Your task to perform on an android device: turn on priority inbox in the gmail app Image 0: 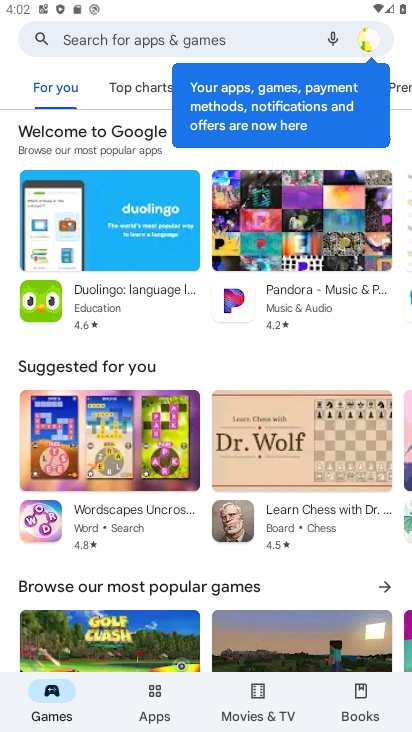
Step 0: press home button
Your task to perform on an android device: turn on priority inbox in the gmail app Image 1: 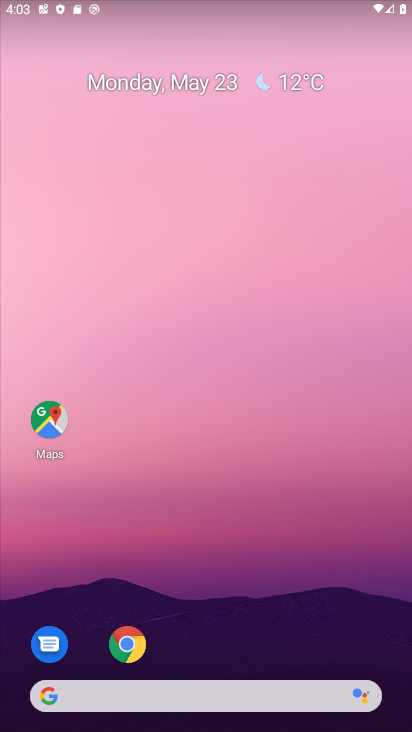
Step 1: drag from (223, 632) to (169, 188)
Your task to perform on an android device: turn on priority inbox in the gmail app Image 2: 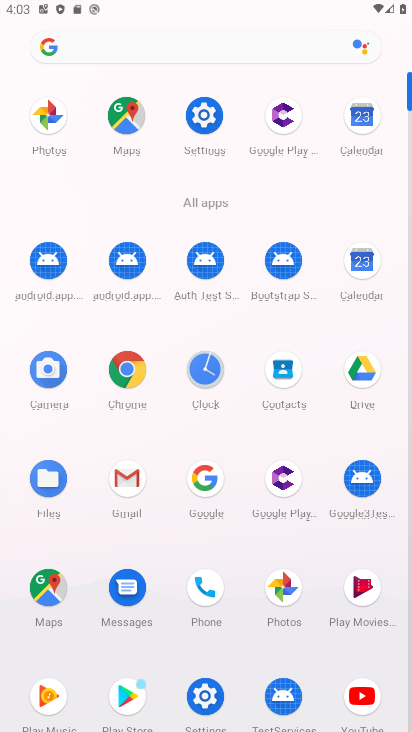
Step 2: click (129, 478)
Your task to perform on an android device: turn on priority inbox in the gmail app Image 3: 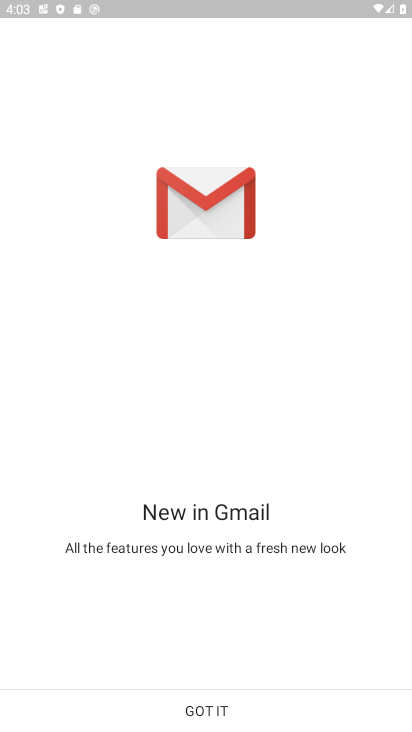
Step 3: click (220, 695)
Your task to perform on an android device: turn on priority inbox in the gmail app Image 4: 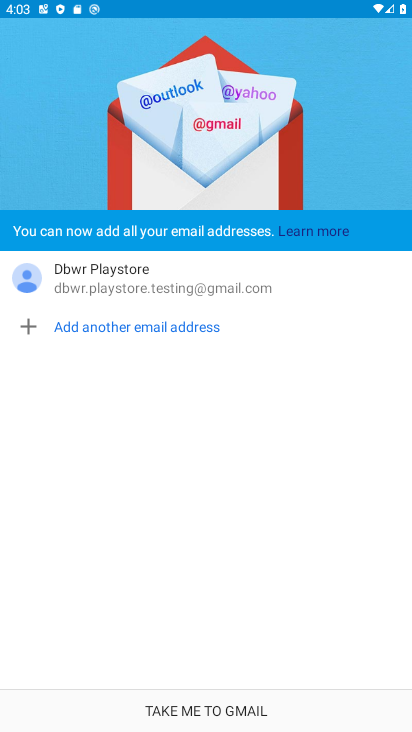
Step 4: click (220, 695)
Your task to perform on an android device: turn on priority inbox in the gmail app Image 5: 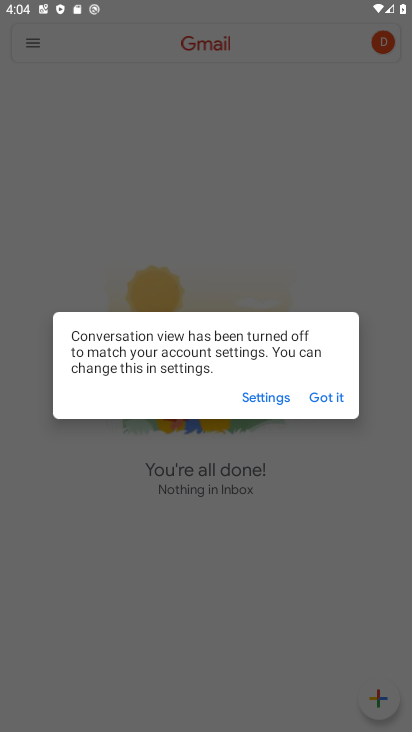
Step 5: click (337, 401)
Your task to perform on an android device: turn on priority inbox in the gmail app Image 6: 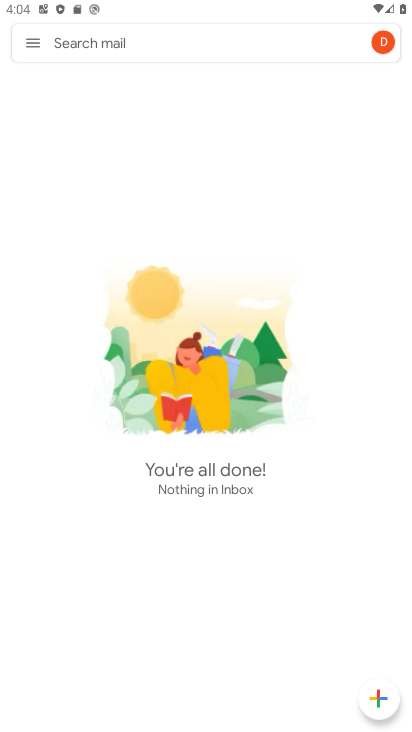
Step 6: click (35, 47)
Your task to perform on an android device: turn on priority inbox in the gmail app Image 7: 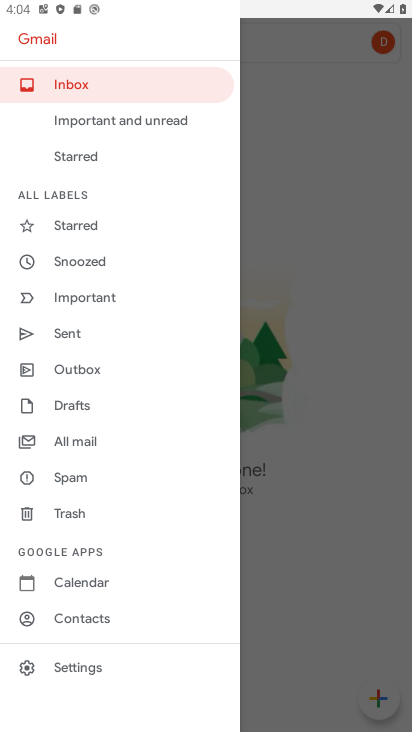
Step 7: click (128, 672)
Your task to perform on an android device: turn on priority inbox in the gmail app Image 8: 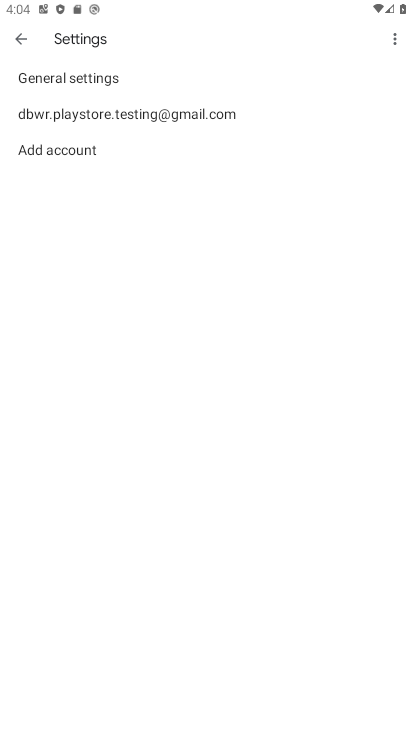
Step 8: click (141, 102)
Your task to perform on an android device: turn on priority inbox in the gmail app Image 9: 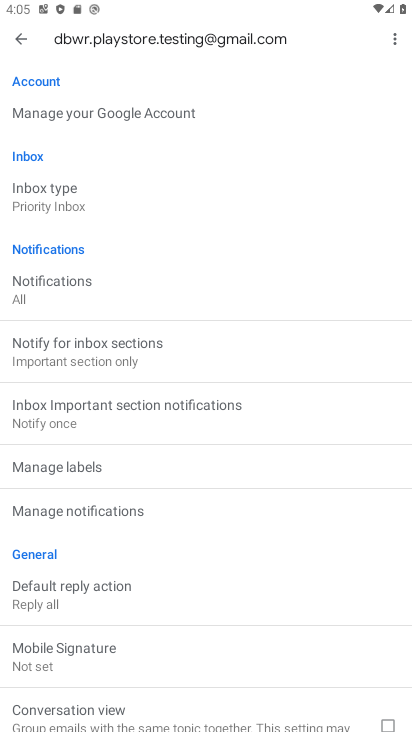
Step 9: task complete